Your task to perform on an android device: Open privacy settings Image 0: 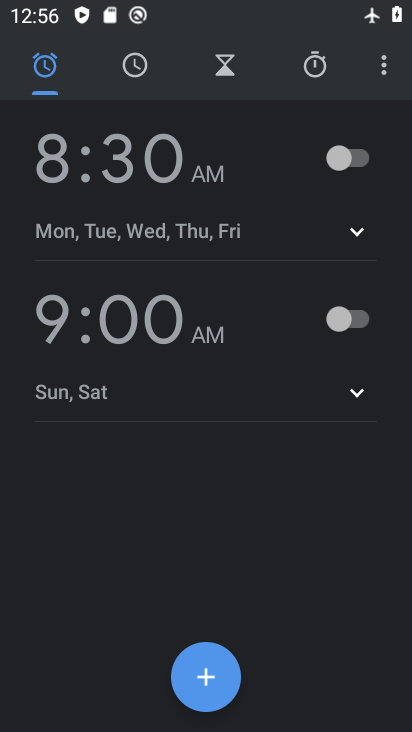
Step 0: press home button
Your task to perform on an android device: Open privacy settings Image 1: 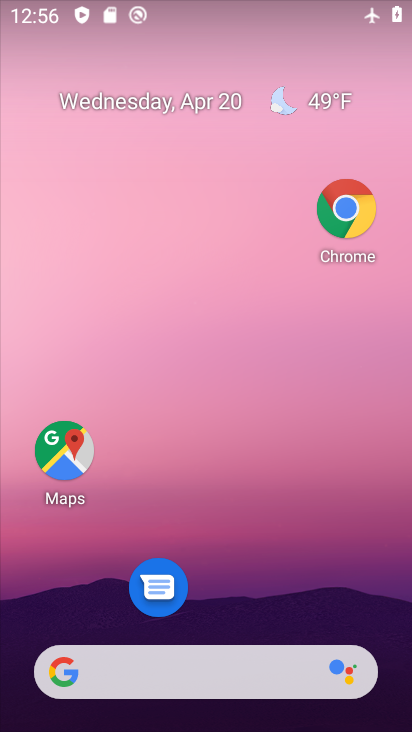
Step 1: drag from (239, 611) to (324, 70)
Your task to perform on an android device: Open privacy settings Image 2: 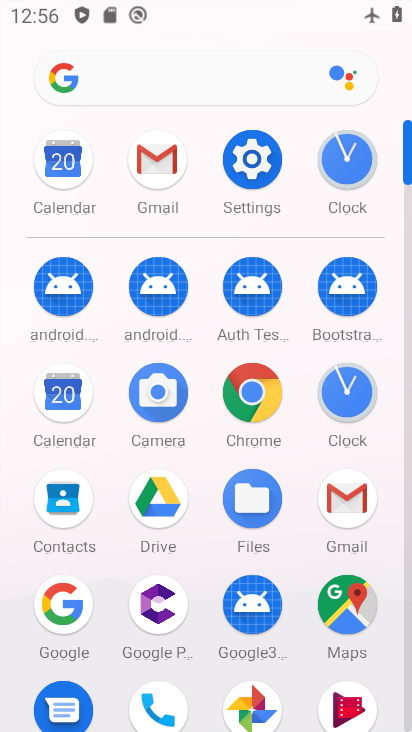
Step 2: click (269, 170)
Your task to perform on an android device: Open privacy settings Image 3: 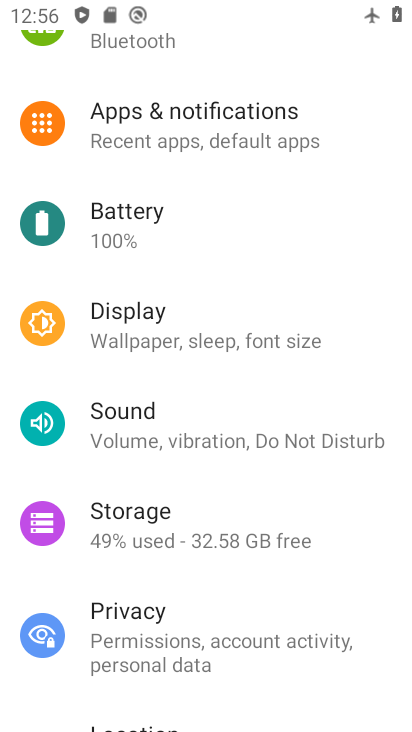
Step 3: click (145, 624)
Your task to perform on an android device: Open privacy settings Image 4: 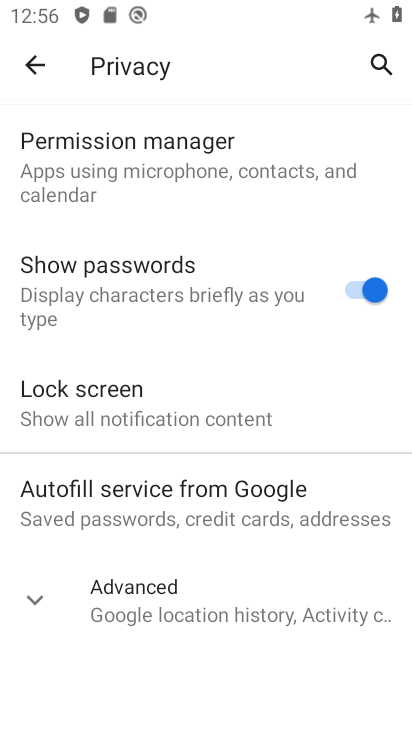
Step 4: task complete